Your task to perform on an android device: turn on location history Image 0: 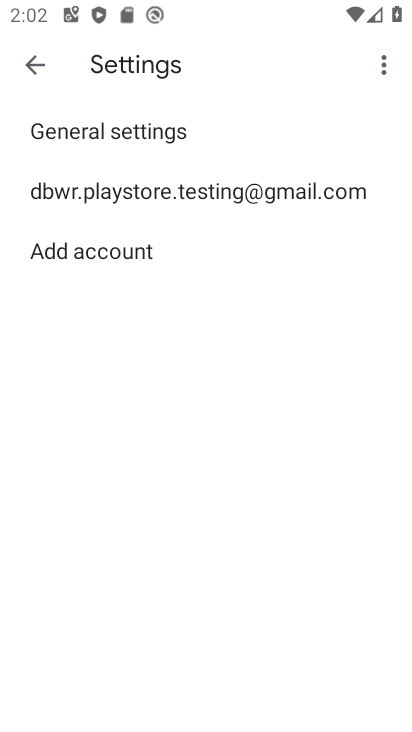
Step 0: press home button
Your task to perform on an android device: turn on location history Image 1: 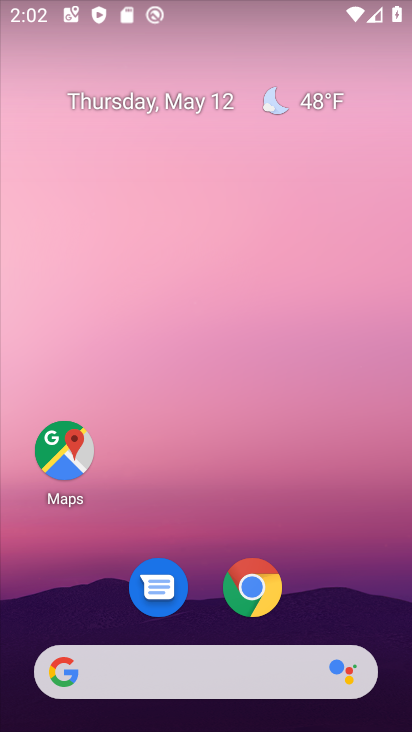
Step 1: drag from (292, 588) to (299, 180)
Your task to perform on an android device: turn on location history Image 2: 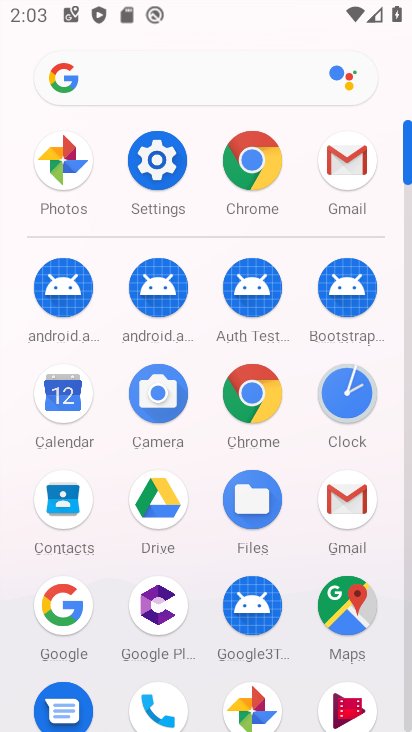
Step 2: click (178, 180)
Your task to perform on an android device: turn on location history Image 3: 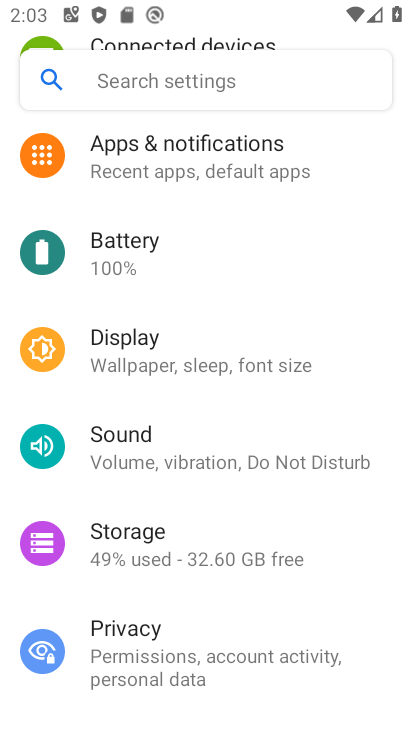
Step 3: drag from (177, 610) to (195, 317)
Your task to perform on an android device: turn on location history Image 4: 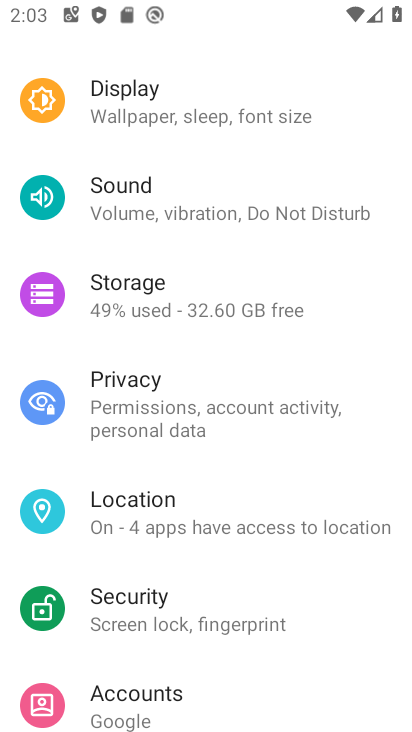
Step 4: click (203, 506)
Your task to perform on an android device: turn on location history Image 5: 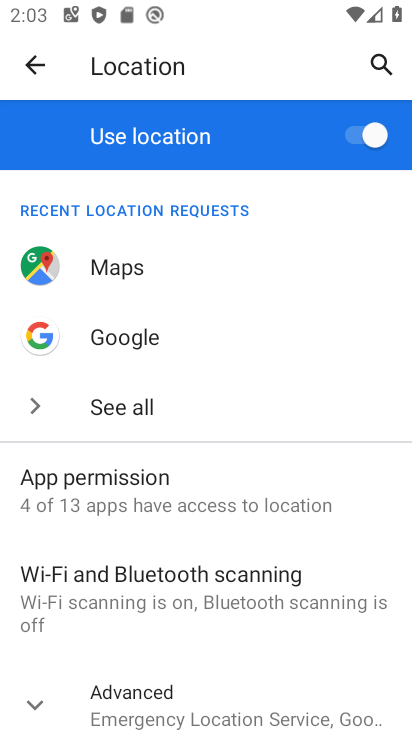
Step 5: click (173, 697)
Your task to perform on an android device: turn on location history Image 6: 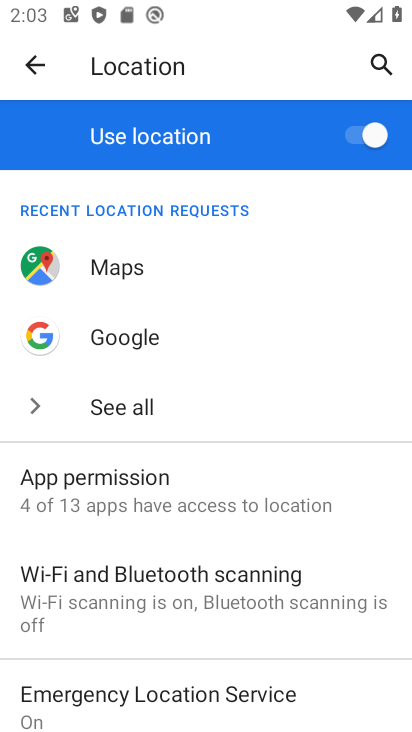
Step 6: drag from (178, 614) to (206, 346)
Your task to perform on an android device: turn on location history Image 7: 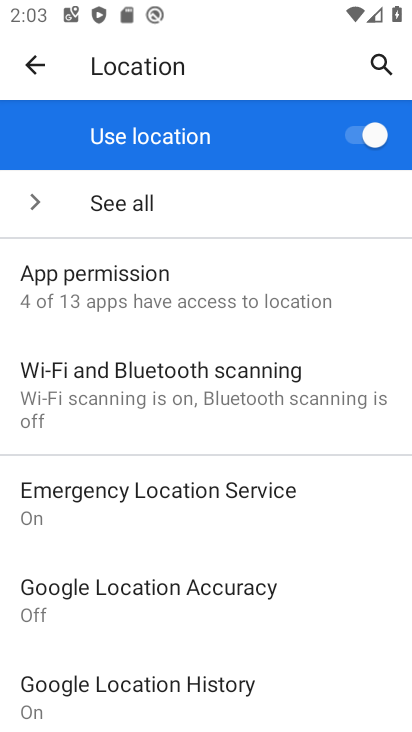
Step 7: drag from (174, 591) to (175, 415)
Your task to perform on an android device: turn on location history Image 8: 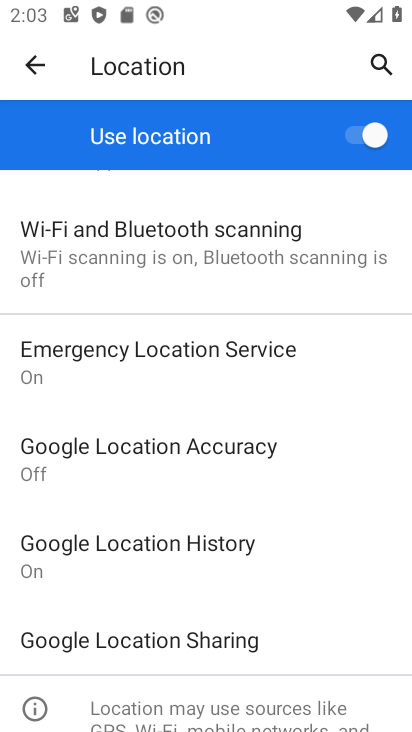
Step 8: click (198, 556)
Your task to perform on an android device: turn on location history Image 9: 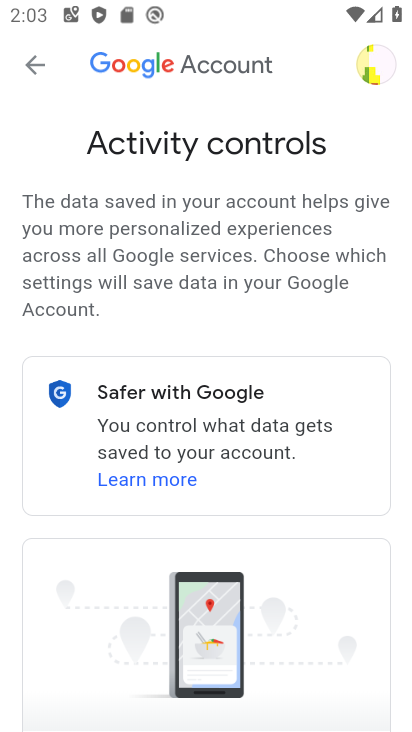
Step 9: task complete